Your task to perform on an android device: toggle javascript in the chrome app Image 0: 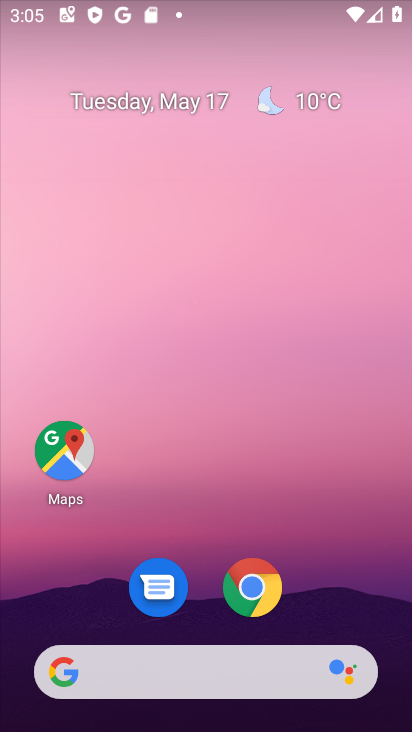
Step 0: drag from (300, 315) to (404, 161)
Your task to perform on an android device: toggle javascript in the chrome app Image 1: 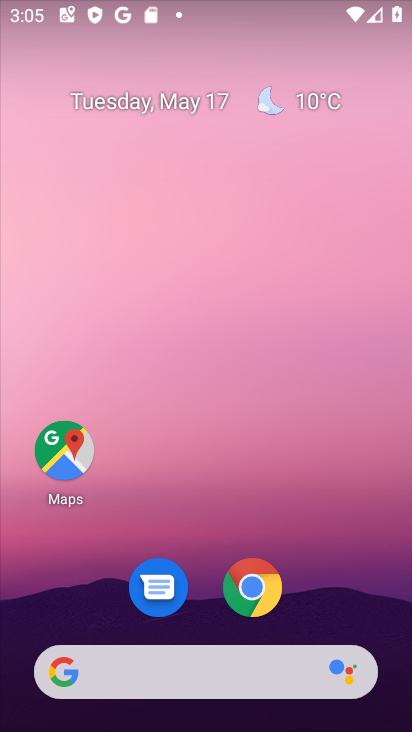
Step 1: drag from (2, 602) to (0, 32)
Your task to perform on an android device: toggle javascript in the chrome app Image 2: 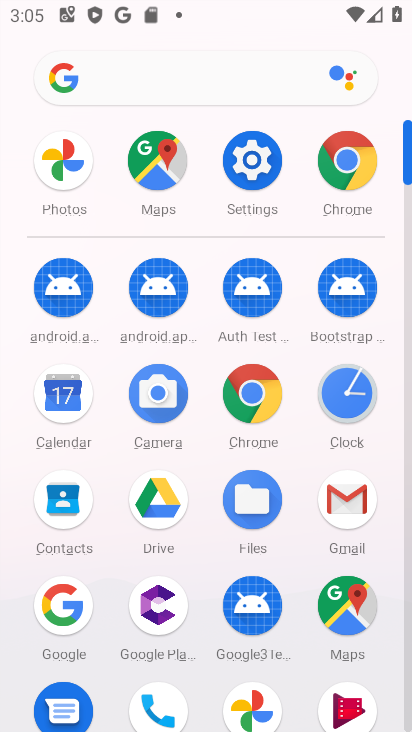
Step 2: click (347, 160)
Your task to perform on an android device: toggle javascript in the chrome app Image 3: 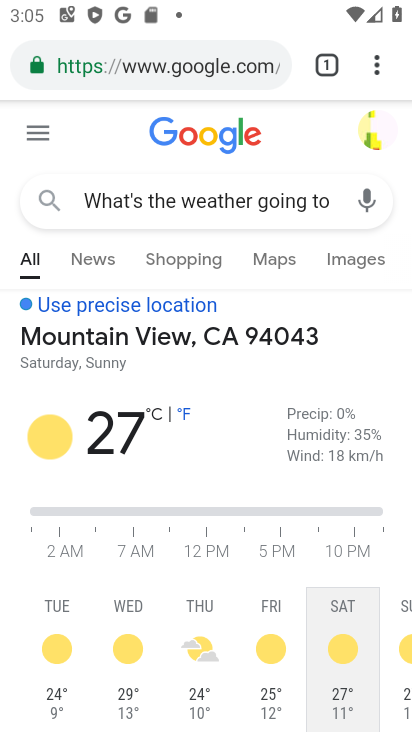
Step 3: task complete